Your task to perform on an android device: Open notification settings Image 0: 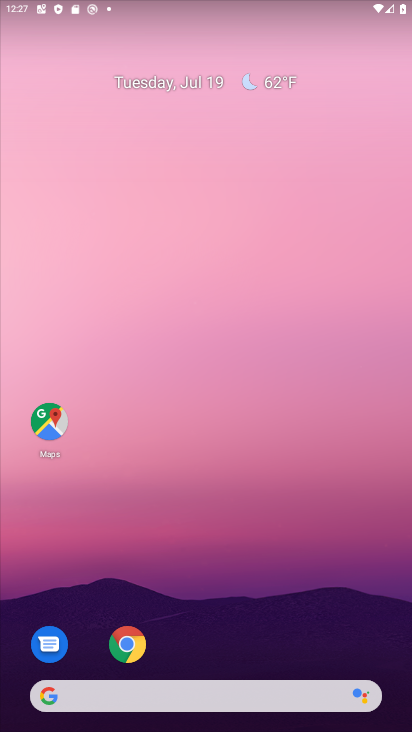
Step 0: drag from (234, 587) to (176, 115)
Your task to perform on an android device: Open notification settings Image 1: 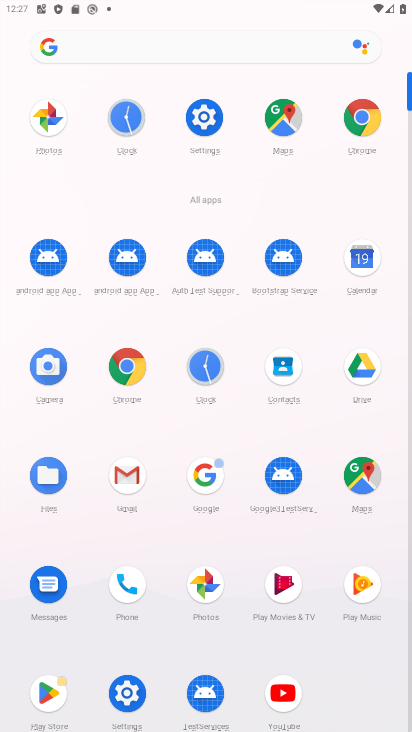
Step 1: click (208, 112)
Your task to perform on an android device: Open notification settings Image 2: 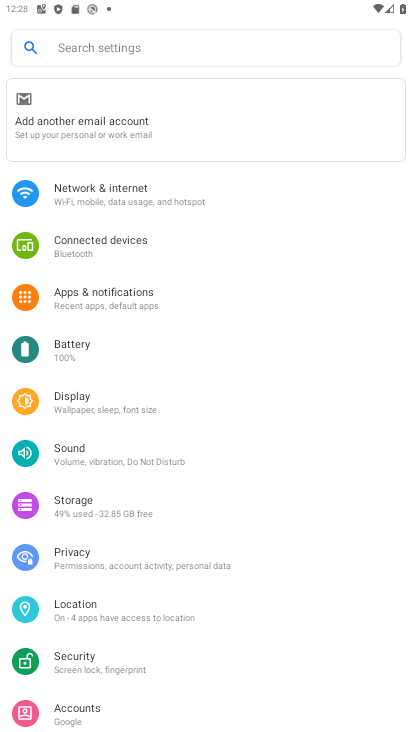
Step 2: click (112, 292)
Your task to perform on an android device: Open notification settings Image 3: 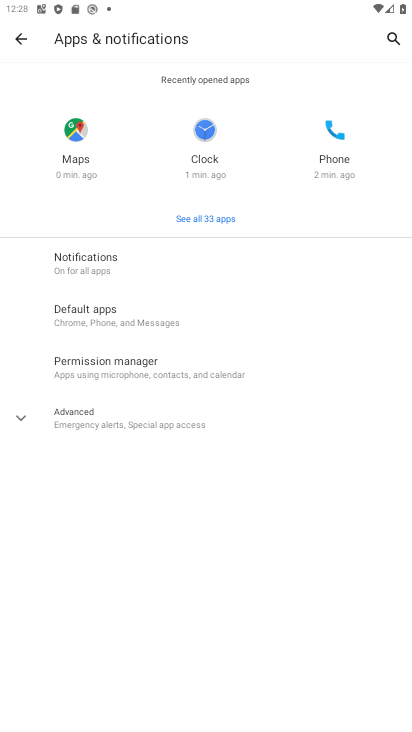
Step 3: task complete